Your task to perform on an android device: check storage Image 0: 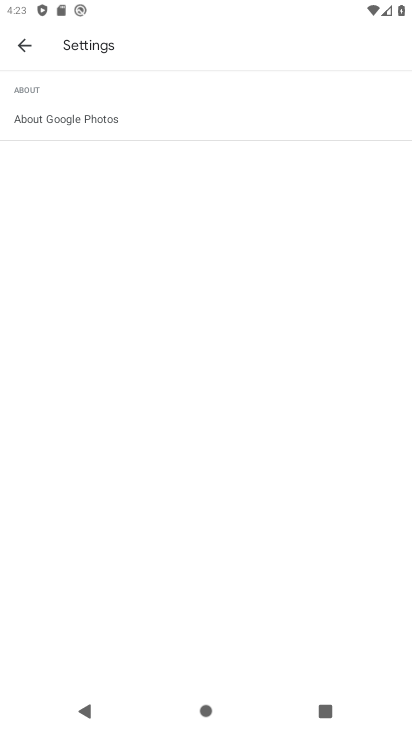
Step 0: press home button
Your task to perform on an android device: check storage Image 1: 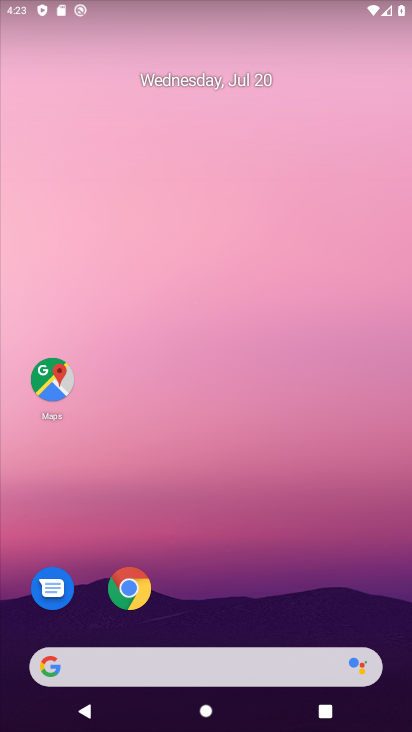
Step 1: drag from (207, 622) to (242, 91)
Your task to perform on an android device: check storage Image 2: 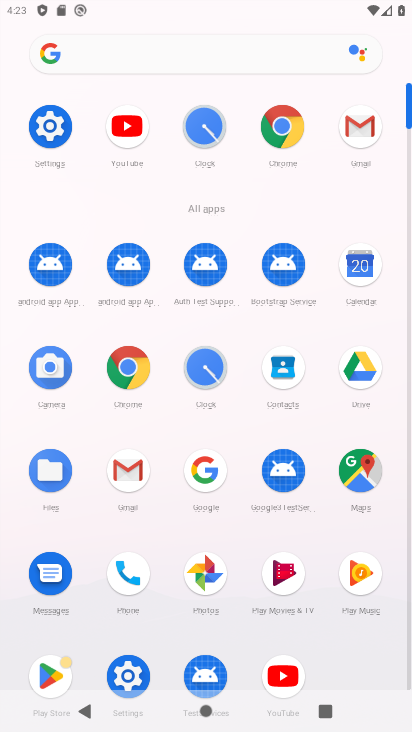
Step 2: click (45, 119)
Your task to perform on an android device: check storage Image 3: 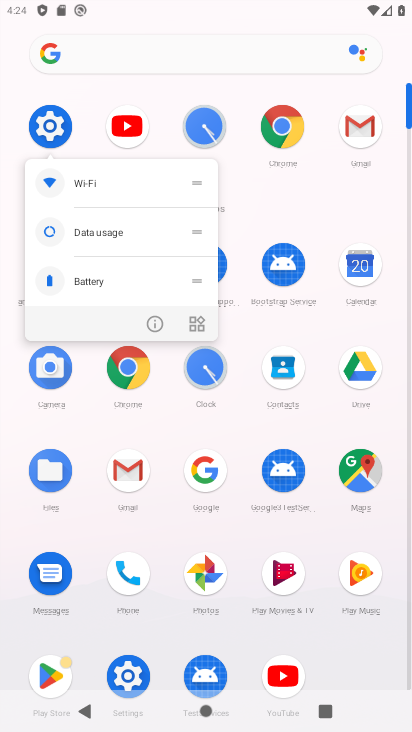
Step 3: click (50, 117)
Your task to perform on an android device: check storage Image 4: 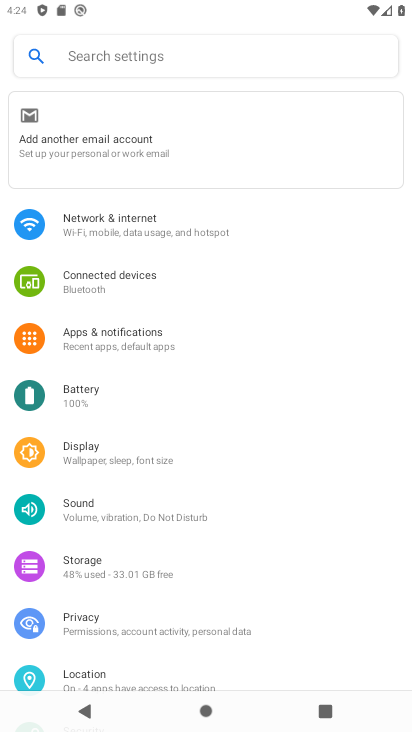
Step 4: click (100, 555)
Your task to perform on an android device: check storage Image 5: 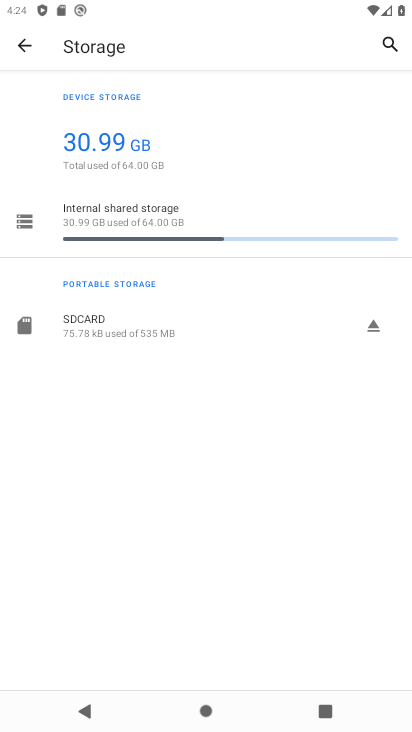
Step 5: task complete